Your task to perform on an android device: Open CNN.com Image 0: 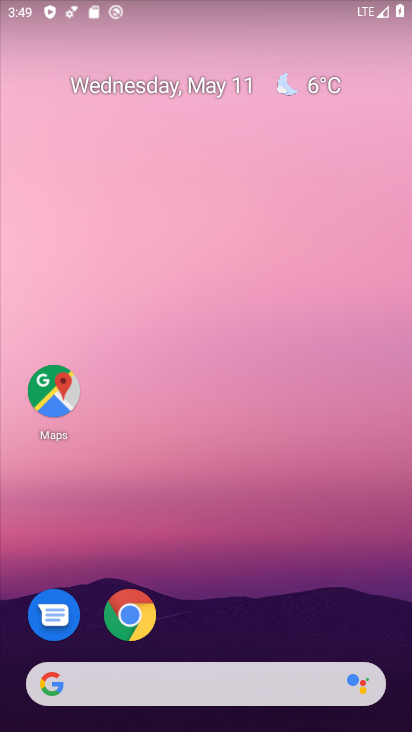
Step 0: click (124, 613)
Your task to perform on an android device: Open CNN.com Image 1: 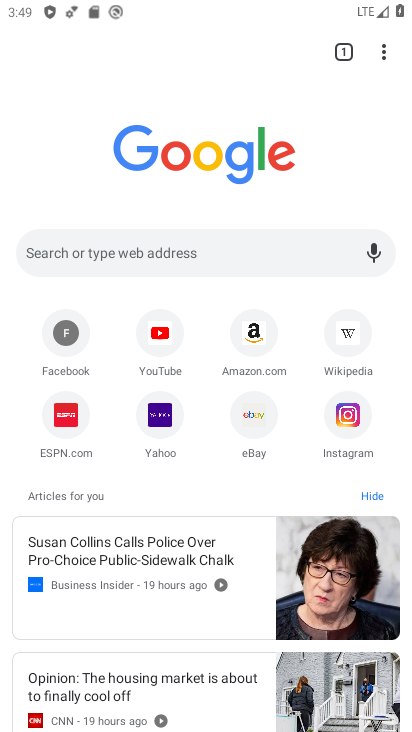
Step 1: click (164, 242)
Your task to perform on an android device: Open CNN.com Image 2: 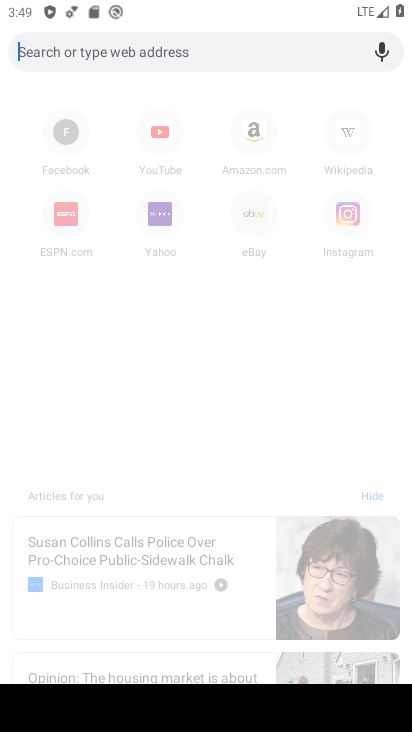
Step 2: type "cnn.com"
Your task to perform on an android device: Open CNN.com Image 3: 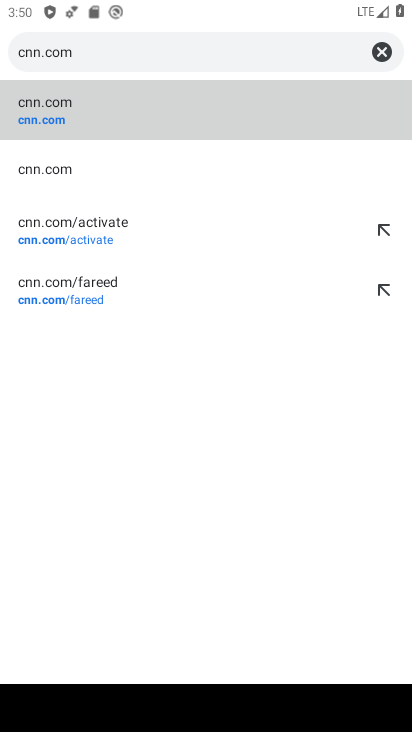
Step 3: click (81, 121)
Your task to perform on an android device: Open CNN.com Image 4: 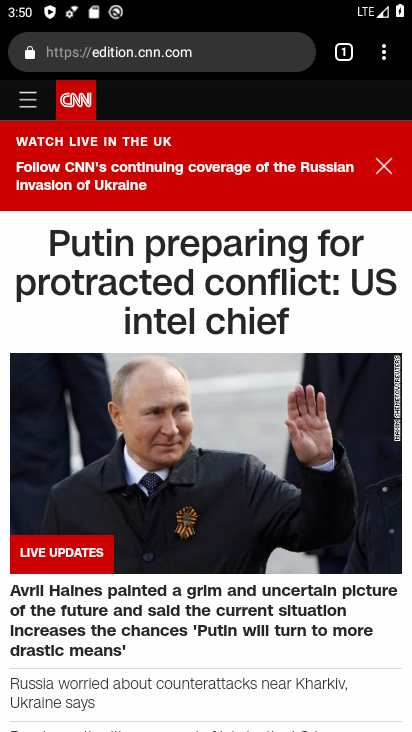
Step 4: task complete